Your task to perform on an android device: Open the calendar and show me this week's events? Image 0: 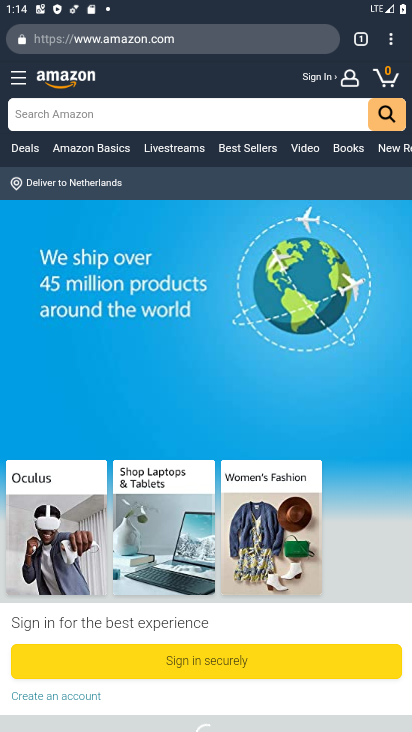
Step 0: press home button
Your task to perform on an android device: Open the calendar and show me this week's events? Image 1: 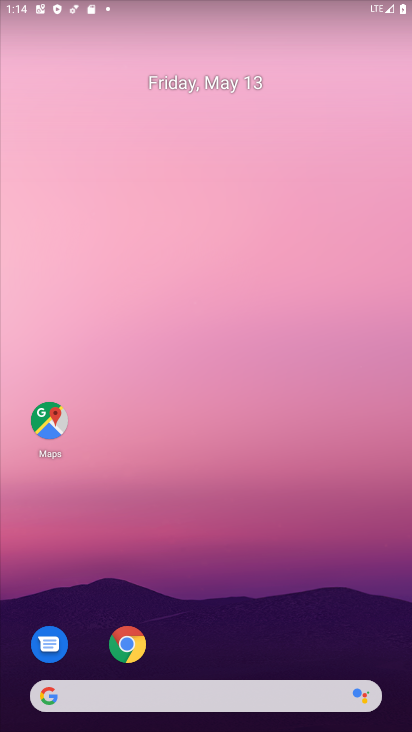
Step 1: drag from (370, 643) to (304, 69)
Your task to perform on an android device: Open the calendar and show me this week's events? Image 2: 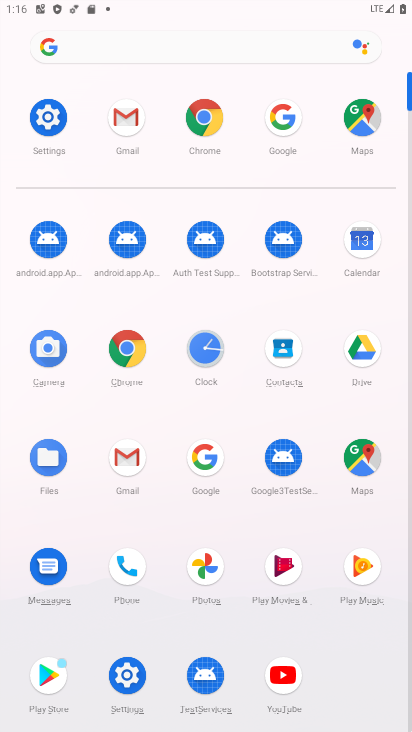
Step 2: click (364, 255)
Your task to perform on an android device: Open the calendar and show me this week's events? Image 3: 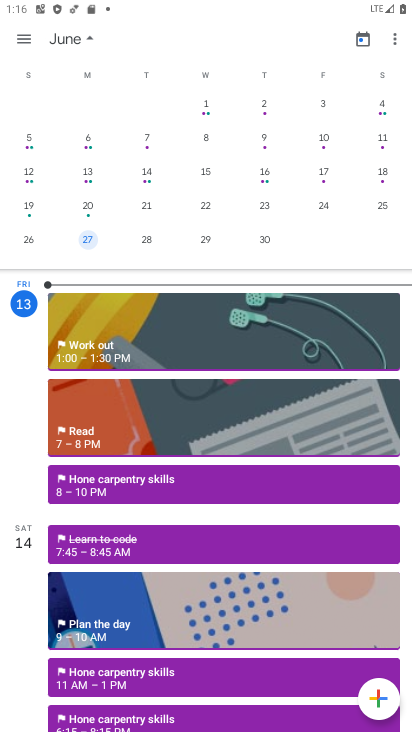
Step 3: click (30, 33)
Your task to perform on an android device: Open the calendar and show me this week's events? Image 4: 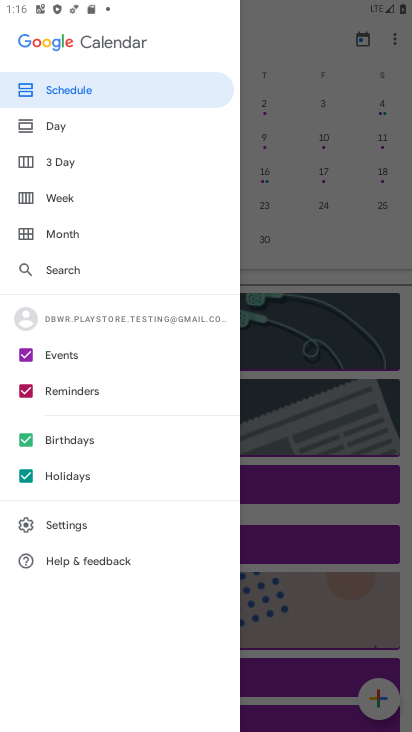
Step 4: click (117, 93)
Your task to perform on an android device: Open the calendar and show me this week's events? Image 5: 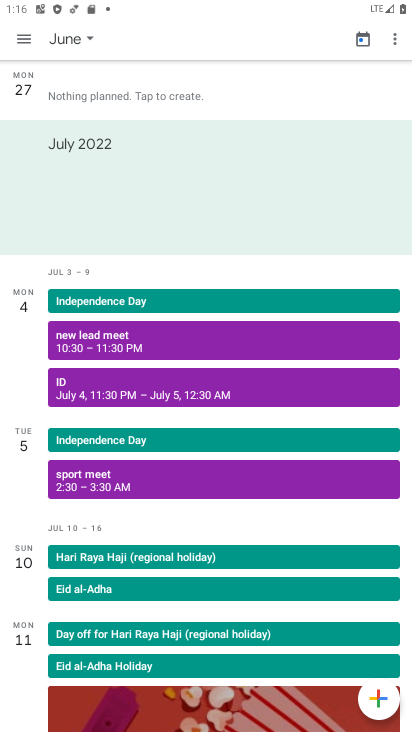
Step 5: task complete